Your task to perform on an android device: Go to Maps Image 0: 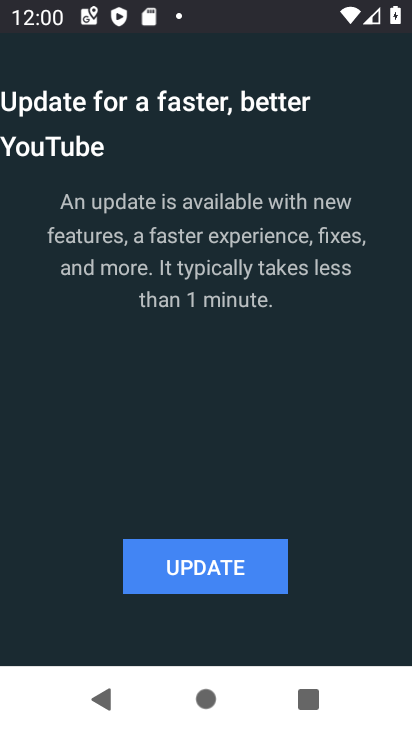
Step 0: press back button
Your task to perform on an android device: Go to Maps Image 1: 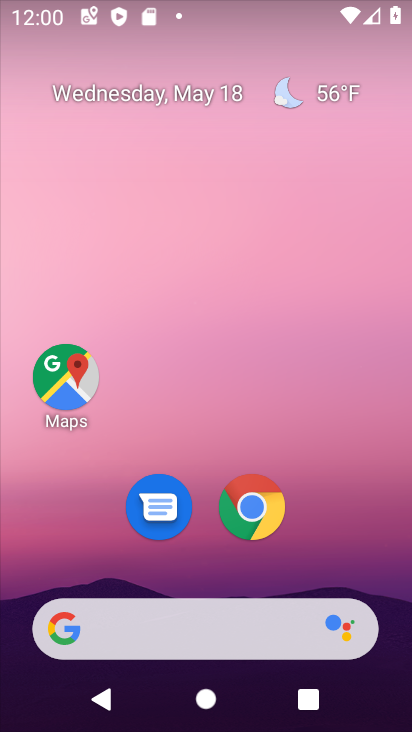
Step 1: click (76, 363)
Your task to perform on an android device: Go to Maps Image 2: 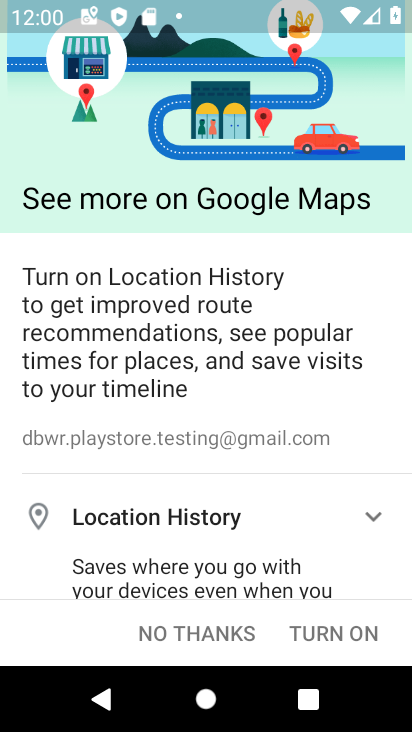
Step 2: click (211, 635)
Your task to perform on an android device: Go to Maps Image 3: 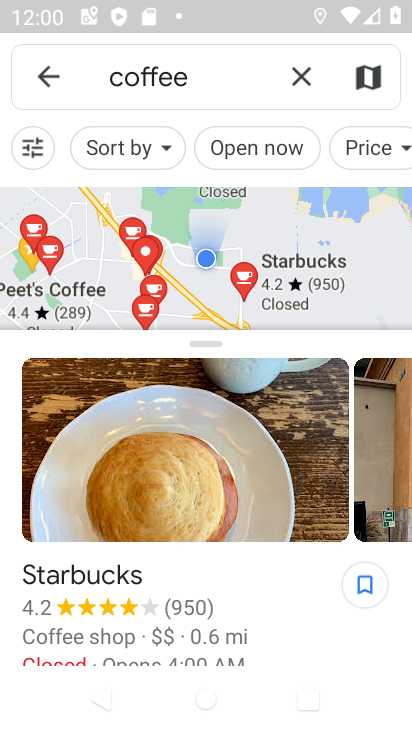
Step 3: task complete